Your task to perform on an android device: find which apps use the phone's location Image 0: 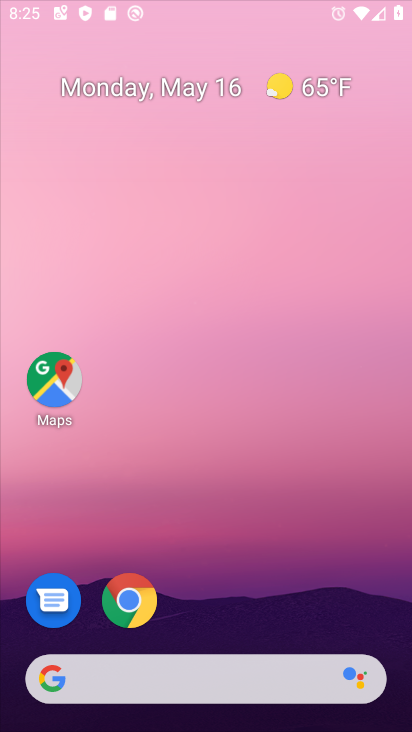
Step 0: click (304, 126)
Your task to perform on an android device: find which apps use the phone's location Image 1: 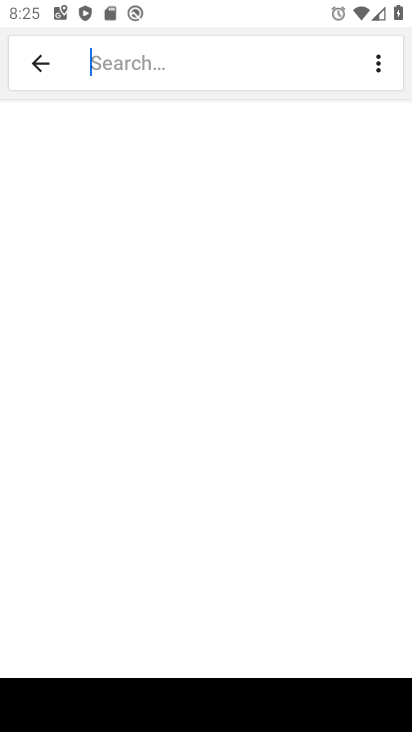
Step 1: drag from (160, 640) to (237, 247)
Your task to perform on an android device: find which apps use the phone's location Image 2: 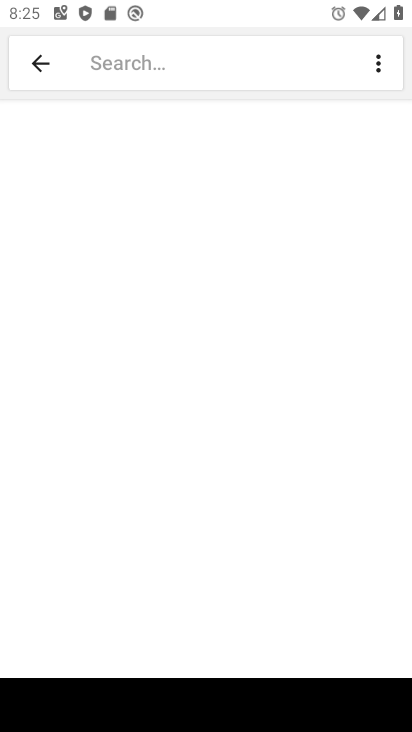
Step 2: drag from (209, 481) to (267, 255)
Your task to perform on an android device: find which apps use the phone's location Image 3: 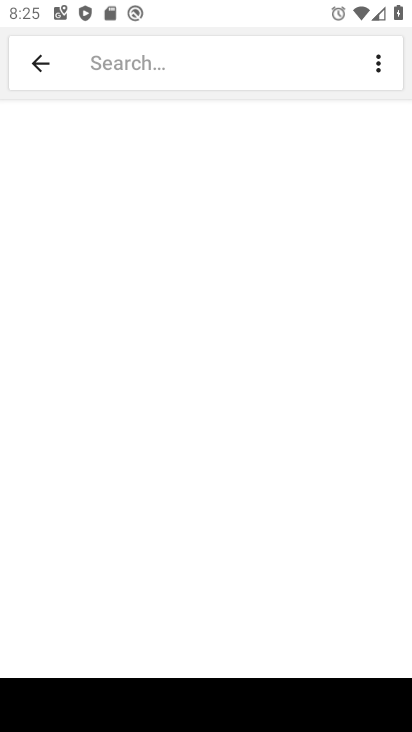
Step 3: press home button
Your task to perform on an android device: find which apps use the phone's location Image 4: 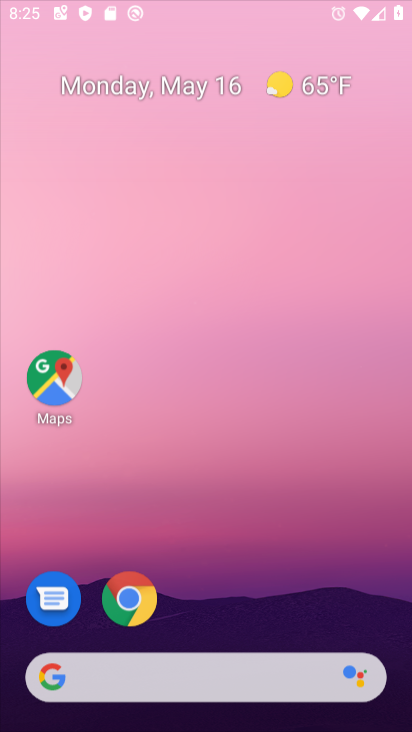
Step 4: drag from (218, 617) to (228, 66)
Your task to perform on an android device: find which apps use the phone's location Image 5: 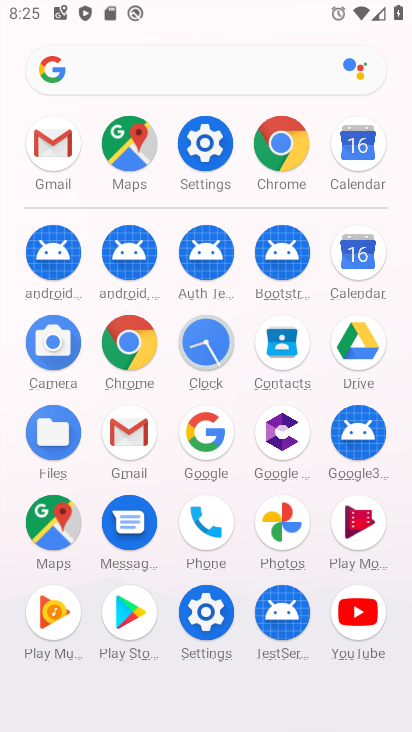
Step 5: click (207, 141)
Your task to perform on an android device: find which apps use the phone's location Image 6: 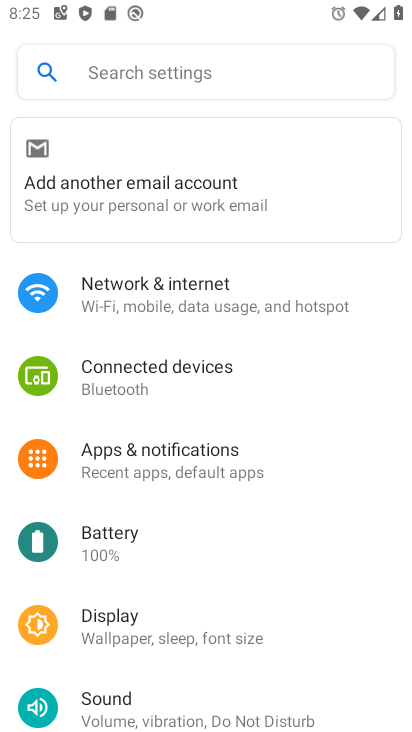
Step 6: drag from (279, 564) to (324, 228)
Your task to perform on an android device: find which apps use the phone's location Image 7: 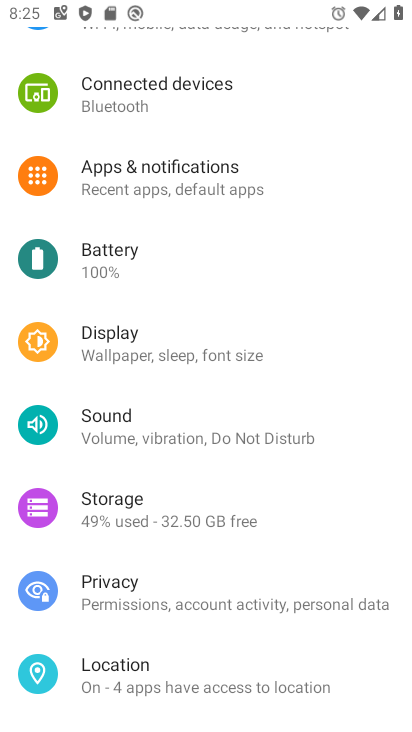
Step 7: drag from (220, 638) to (303, 201)
Your task to perform on an android device: find which apps use the phone's location Image 8: 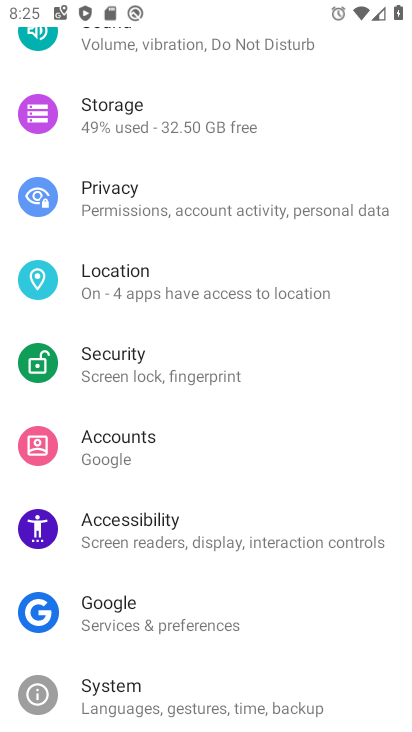
Step 8: click (156, 298)
Your task to perform on an android device: find which apps use the phone's location Image 9: 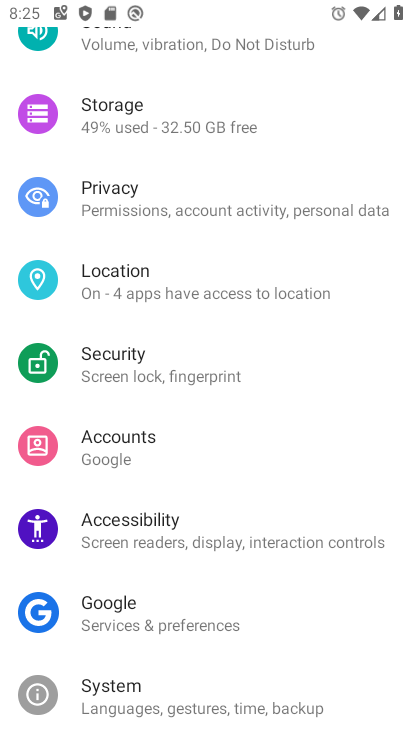
Step 9: click (156, 298)
Your task to perform on an android device: find which apps use the phone's location Image 10: 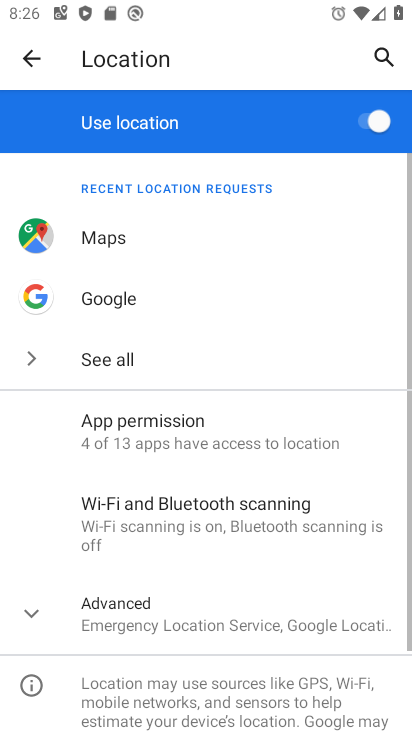
Step 10: drag from (208, 652) to (259, 279)
Your task to perform on an android device: find which apps use the phone's location Image 11: 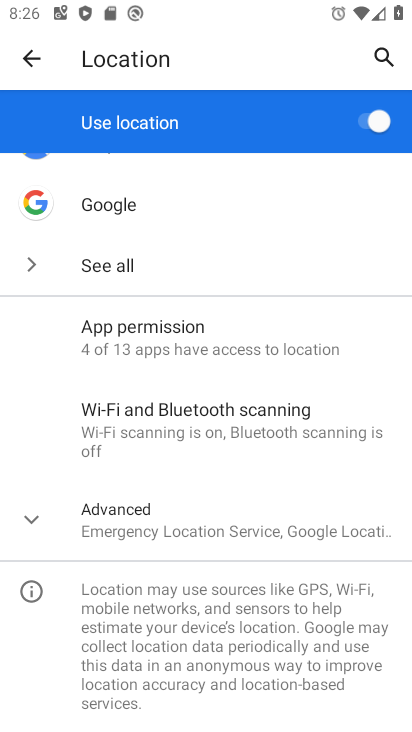
Step 11: click (172, 341)
Your task to perform on an android device: find which apps use the phone's location Image 12: 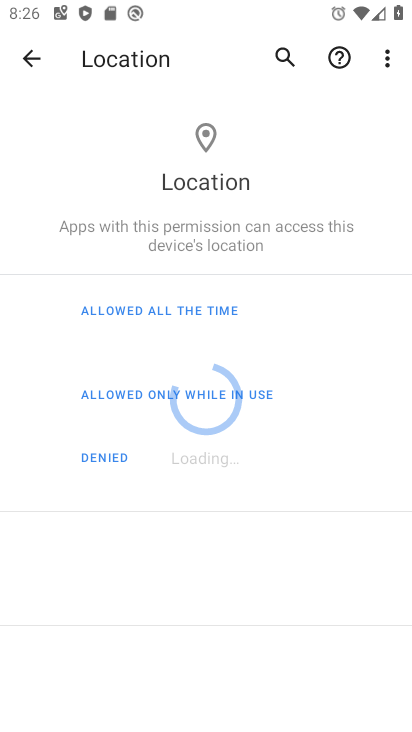
Step 12: task complete